Your task to perform on an android device: Play the last video I watched on Youtube Image 0: 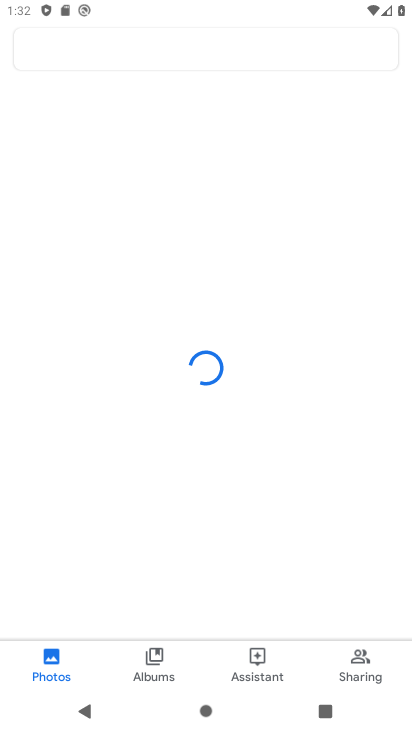
Step 0: press home button
Your task to perform on an android device: Play the last video I watched on Youtube Image 1: 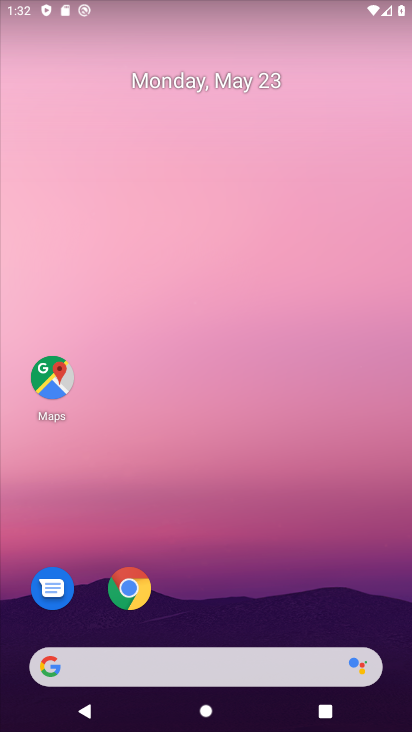
Step 1: drag from (230, 416) to (230, 157)
Your task to perform on an android device: Play the last video I watched on Youtube Image 2: 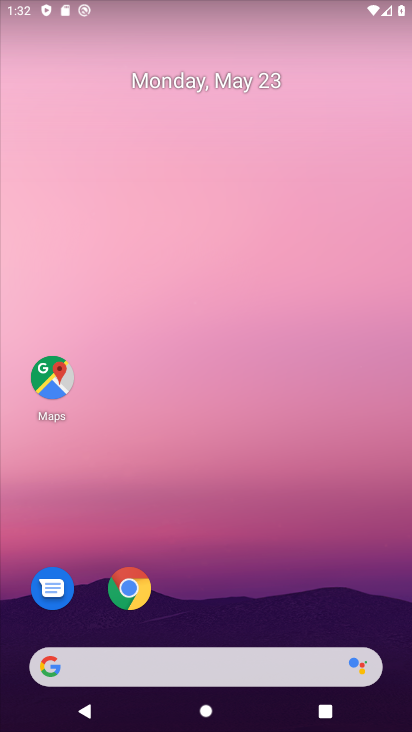
Step 2: drag from (232, 721) to (222, 59)
Your task to perform on an android device: Play the last video I watched on Youtube Image 3: 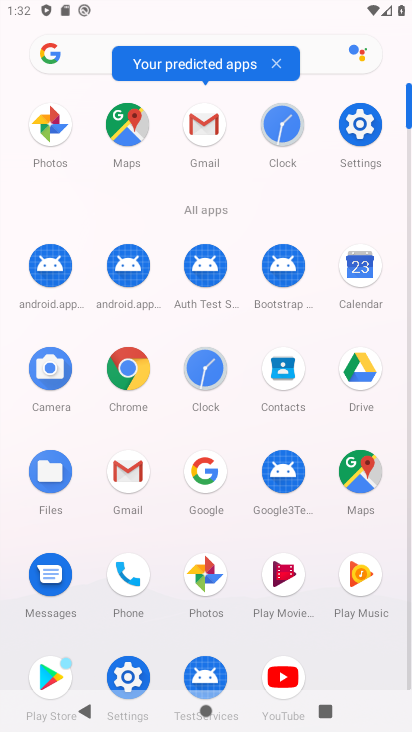
Step 3: click (280, 667)
Your task to perform on an android device: Play the last video I watched on Youtube Image 4: 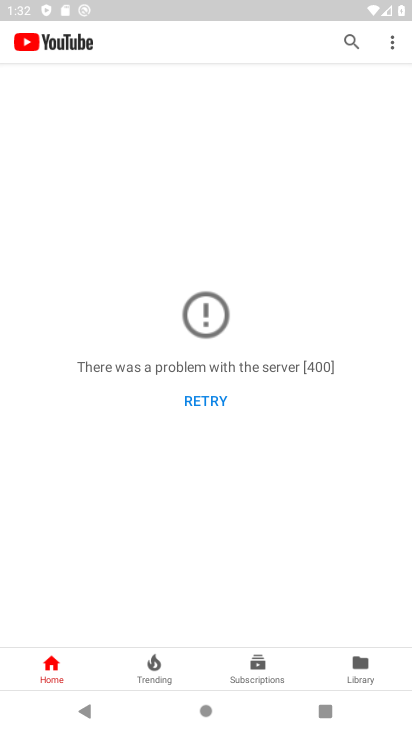
Step 4: click (353, 664)
Your task to perform on an android device: Play the last video I watched on Youtube Image 5: 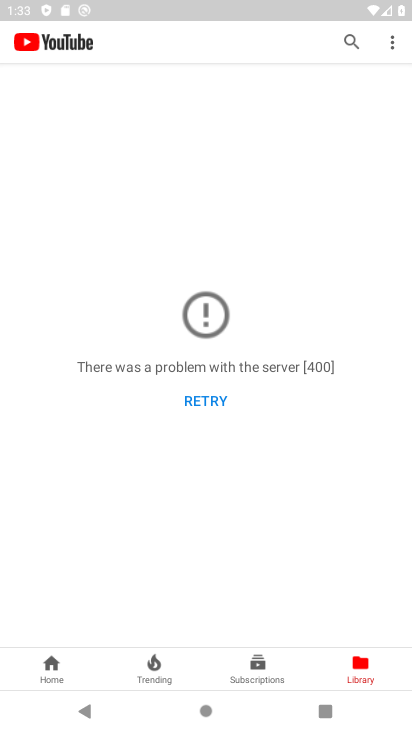
Step 5: task complete